Your task to perform on an android device: open app "Microsoft Outlook" (install if not already installed) Image 0: 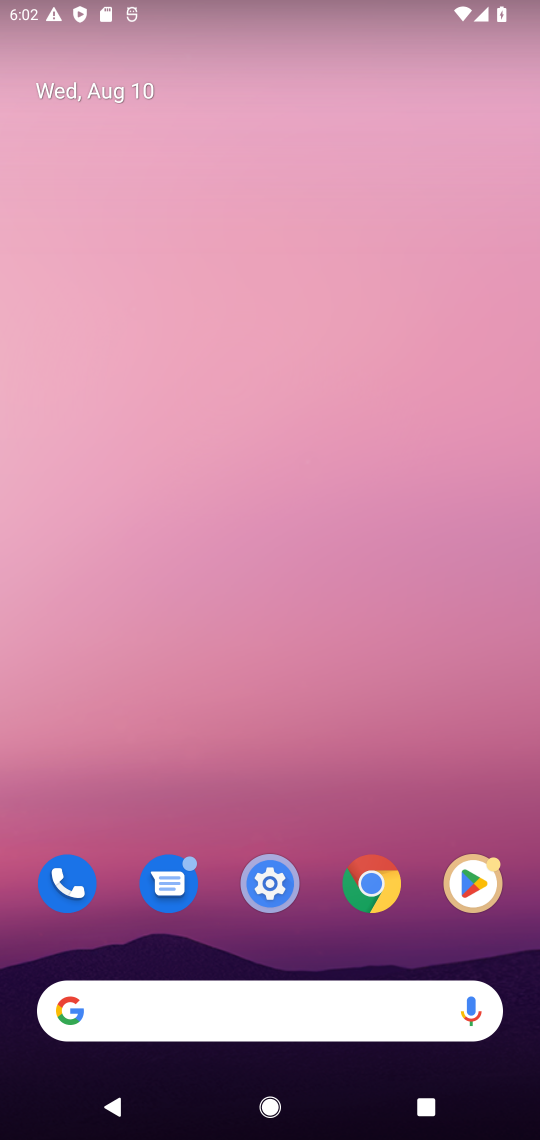
Step 0: click (464, 882)
Your task to perform on an android device: open app "Microsoft Outlook" (install if not already installed) Image 1: 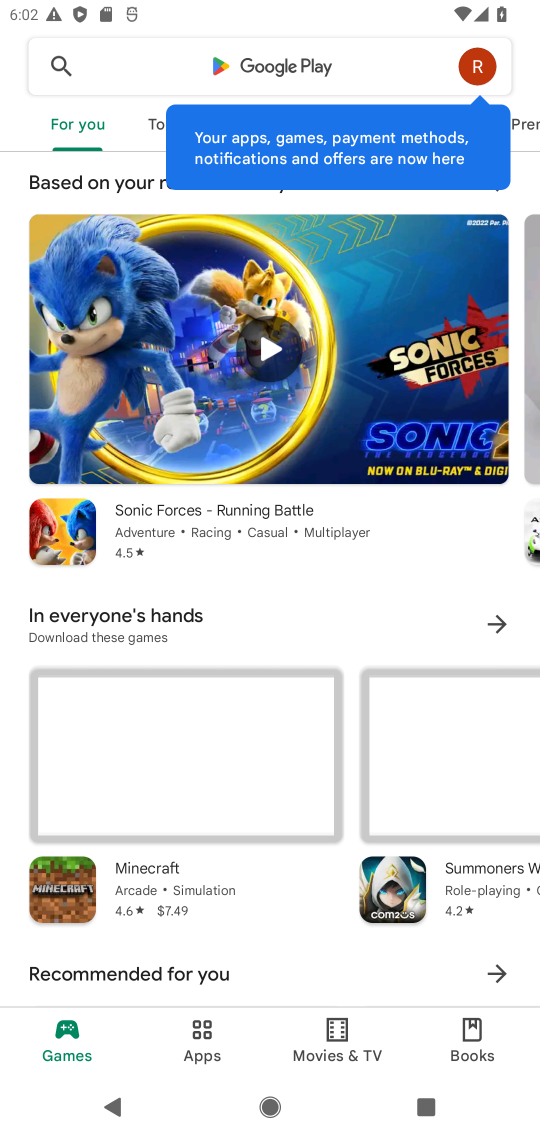
Step 1: click (350, 80)
Your task to perform on an android device: open app "Microsoft Outlook" (install if not already installed) Image 2: 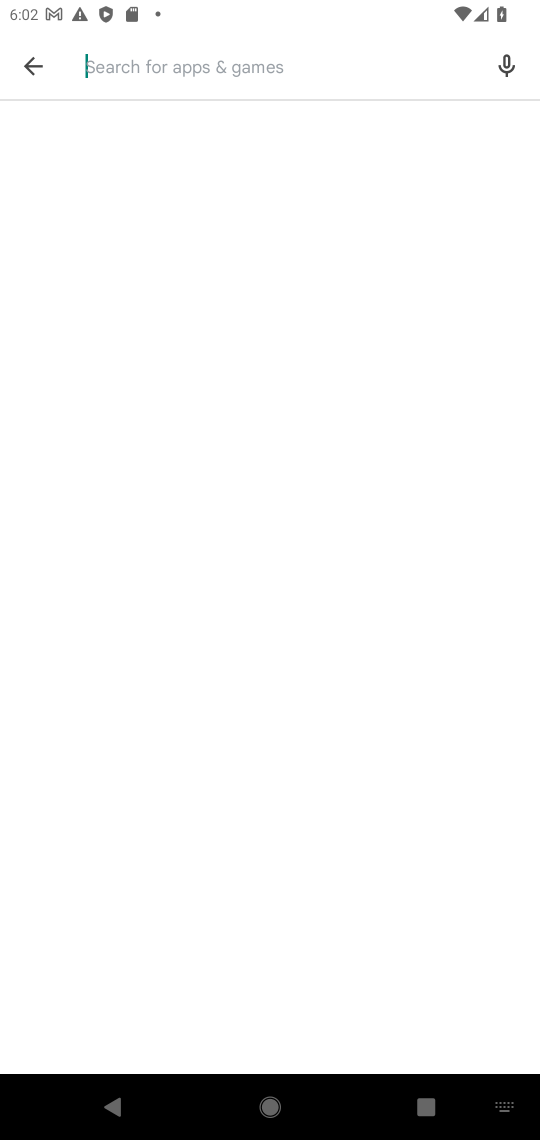
Step 2: type "Microsoft Outlook"
Your task to perform on an android device: open app "Microsoft Outlook" (install if not already installed) Image 3: 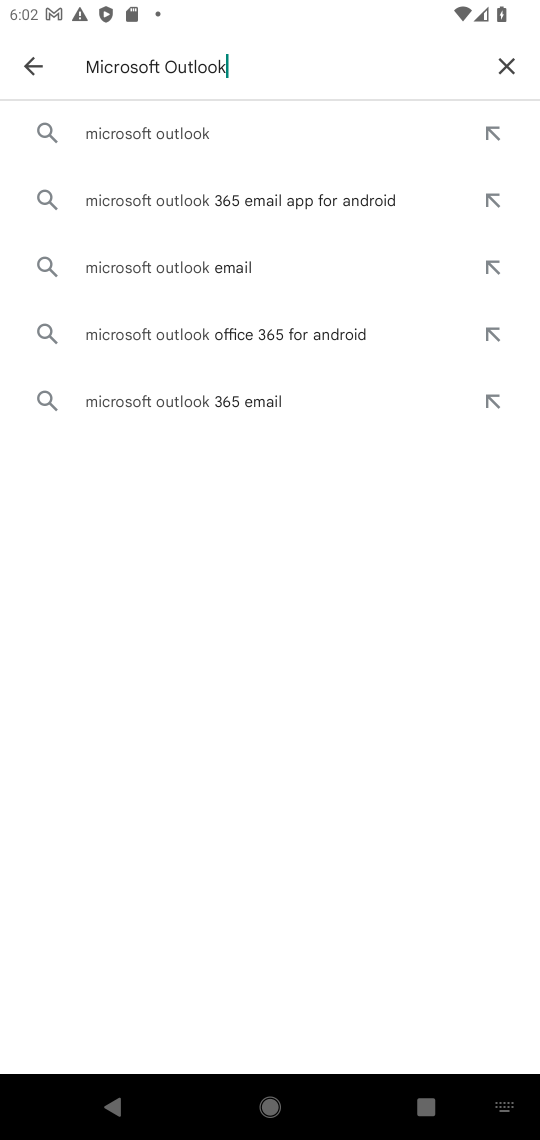
Step 3: click (120, 133)
Your task to perform on an android device: open app "Microsoft Outlook" (install if not already installed) Image 4: 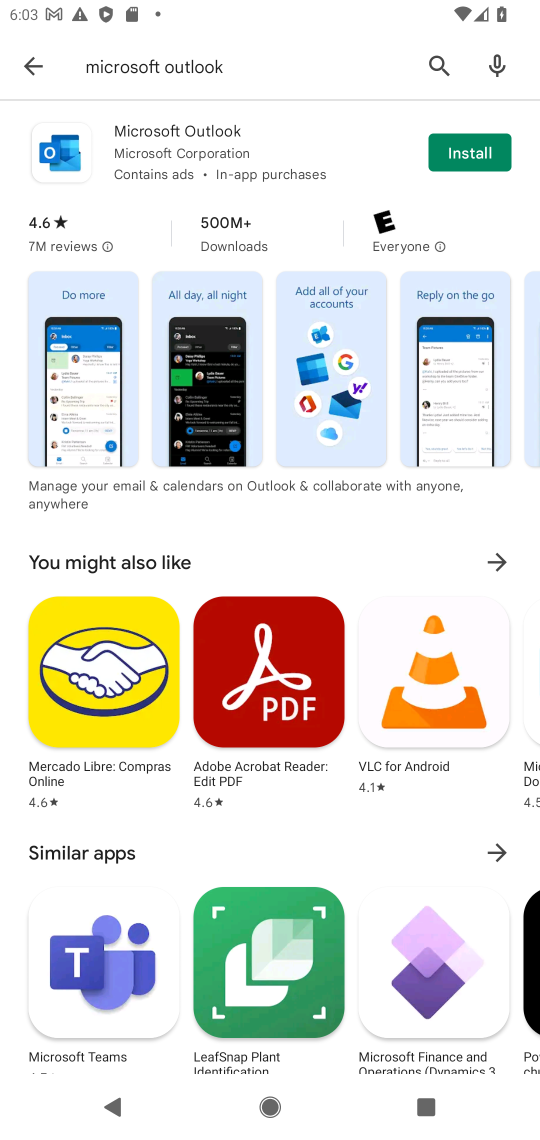
Step 4: click (461, 148)
Your task to perform on an android device: open app "Microsoft Outlook" (install if not already installed) Image 5: 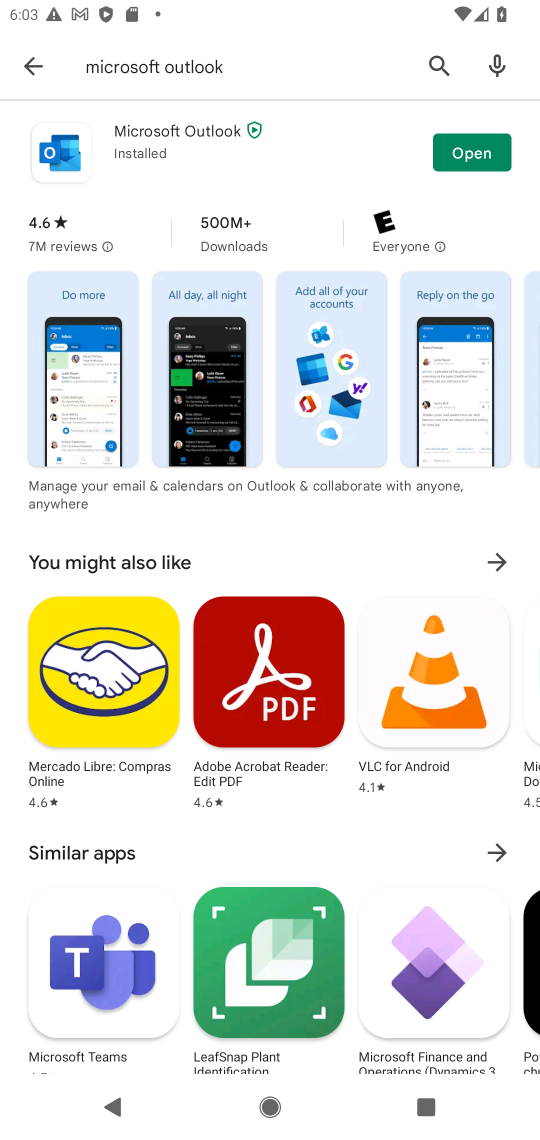
Step 5: click (482, 155)
Your task to perform on an android device: open app "Microsoft Outlook" (install if not already installed) Image 6: 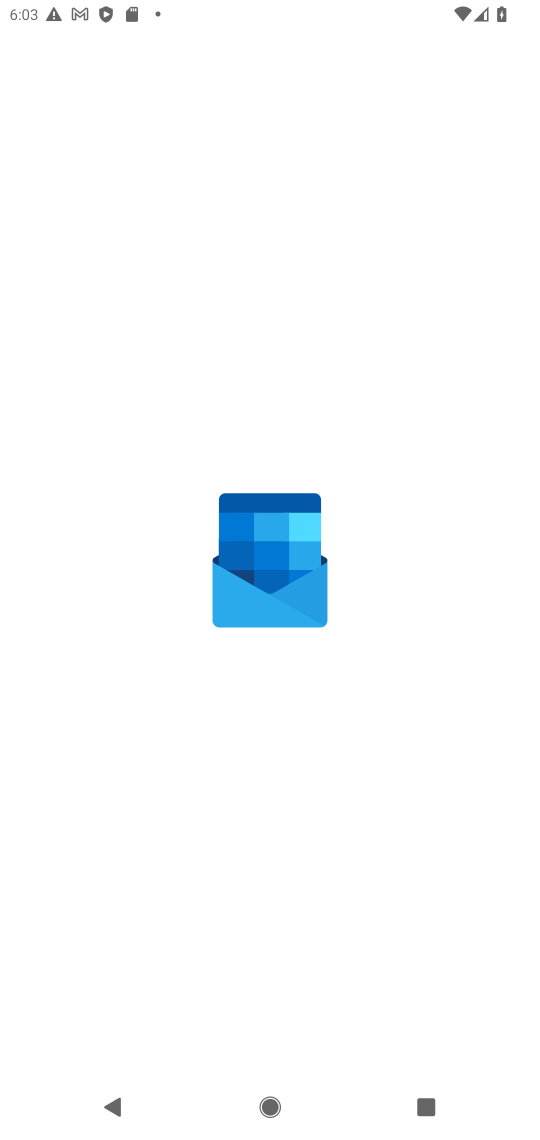
Step 6: task complete